Your task to perform on an android device: turn on data saver in the chrome app Image 0: 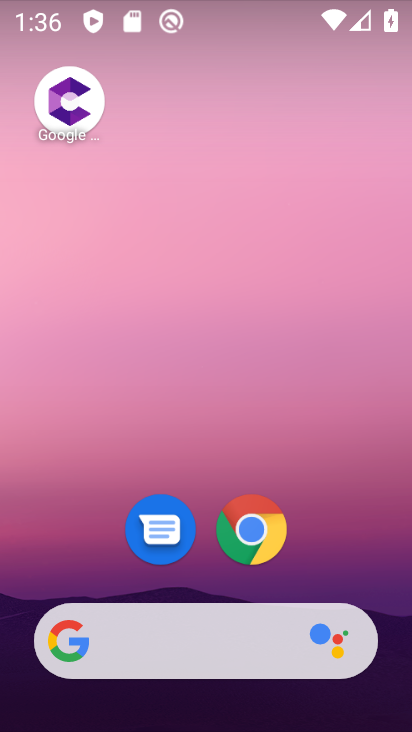
Step 0: click (248, 523)
Your task to perform on an android device: turn on data saver in the chrome app Image 1: 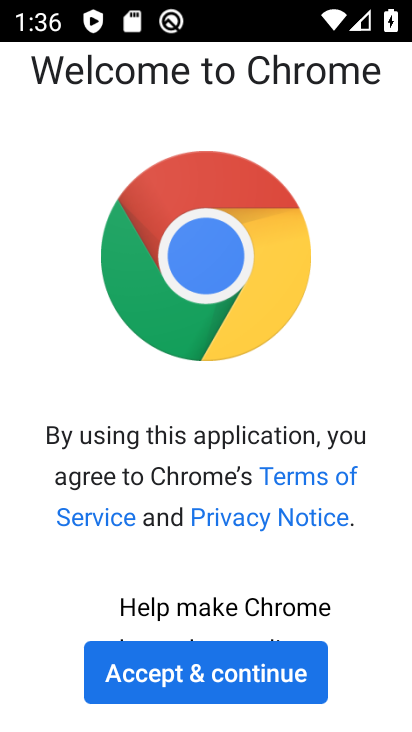
Step 1: click (207, 674)
Your task to perform on an android device: turn on data saver in the chrome app Image 2: 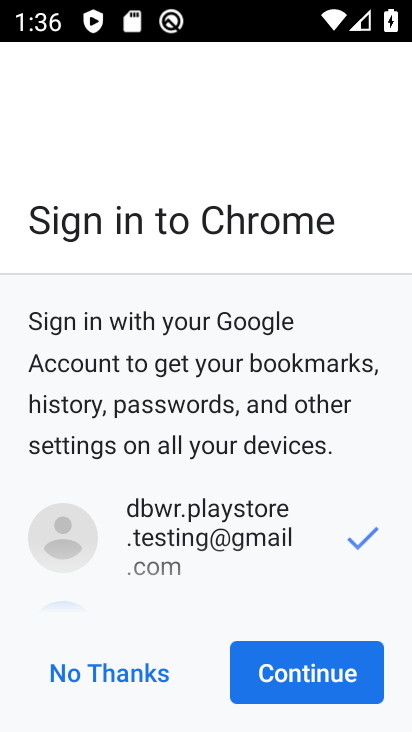
Step 2: click (290, 675)
Your task to perform on an android device: turn on data saver in the chrome app Image 3: 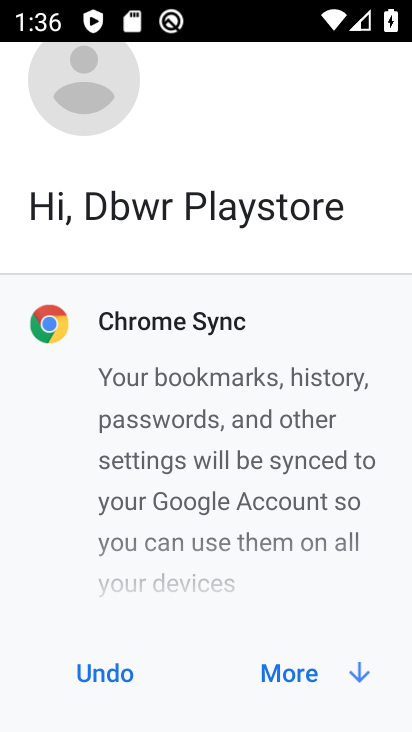
Step 3: click (290, 675)
Your task to perform on an android device: turn on data saver in the chrome app Image 4: 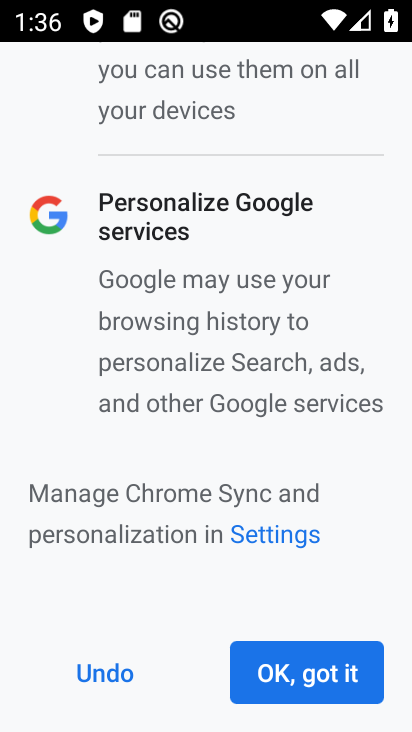
Step 4: click (290, 675)
Your task to perform on an android device: turn on data saver in the chrome app Image 5: 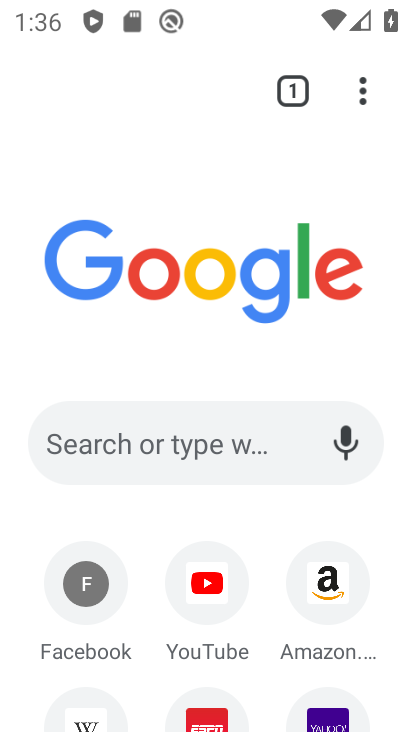
Step 5: click (360, 99)
Your task to perform on an android device: turn on data saver in the chrome app Image 6: 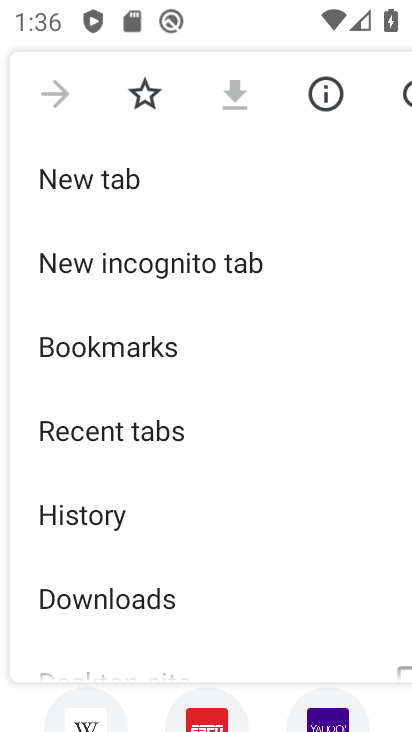
Step 6: drag from (228, 465) to (190, 158)
Your task to perform on an android device: turn on data saver in the chrome app Image 7: 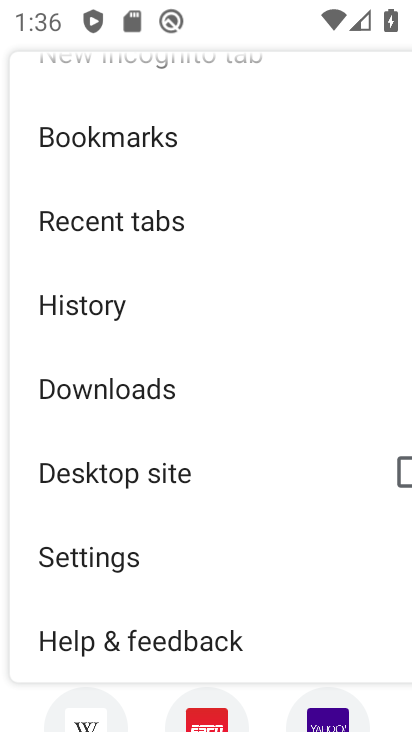
Step 7: drag from (183, 561) to (175, 137)
Your task to perform on an android device: turn on data saver in the chrome app Image 8: 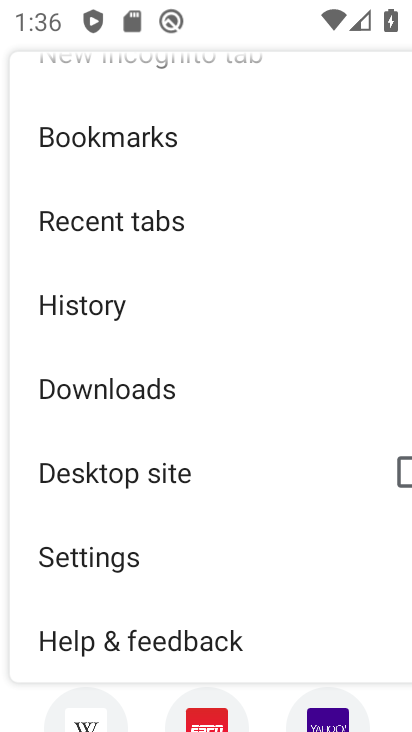
Step 8: click (109, 558)
Your task to perform on an android device: turn on data saver in the chrome app Image 9: 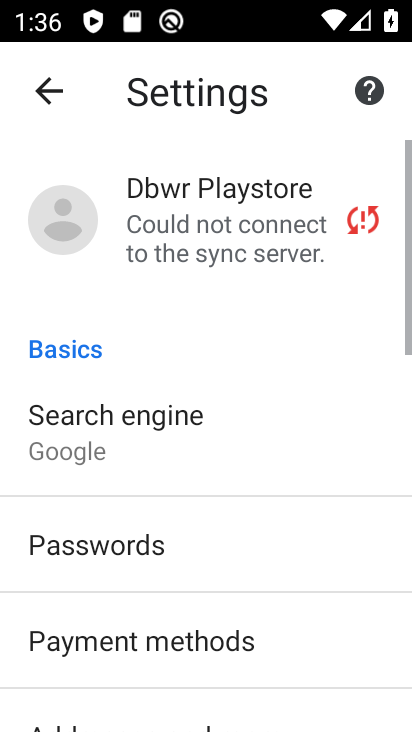
Step 9: drag from (264, 571) to (235, 78)
Your task to perform on an android device: turn on data saver in the chrome app Image 10: 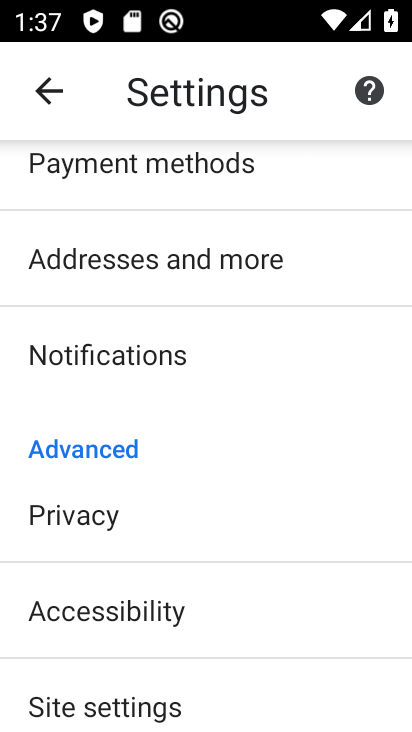
Step 10: drag from (159, 649) to (183, 152)
Your task to perform on an android device: turn on data saver in the chrome app Image 11: 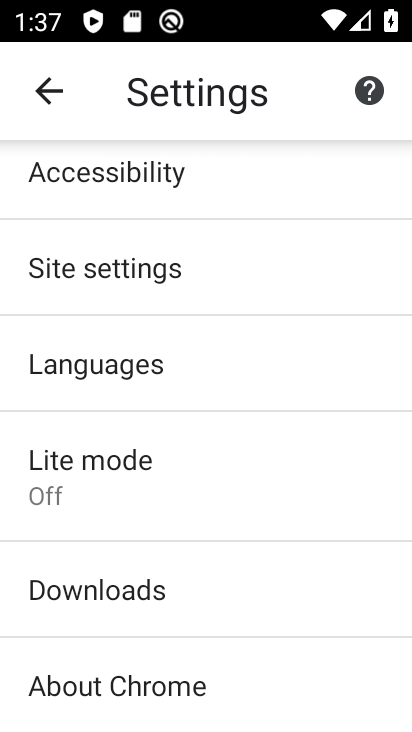
Step 11: click (169, 470)
Your task to perform on an android device: turn on data saver in the chrome app Image 12: 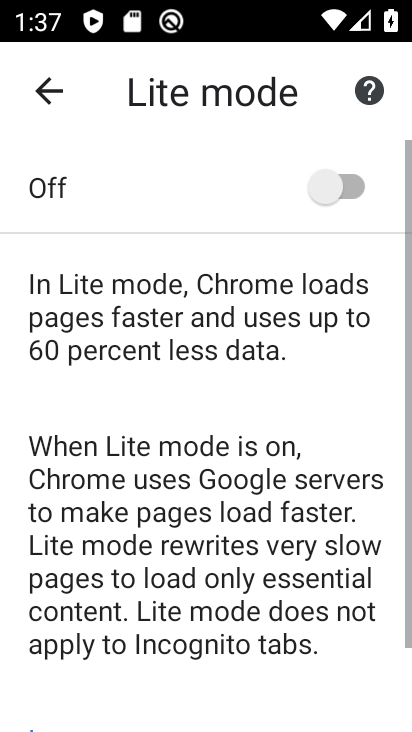
Step 12: click (344, 188)
Your task to perform on an android device: turn on data saver in the chrome app Image 13: 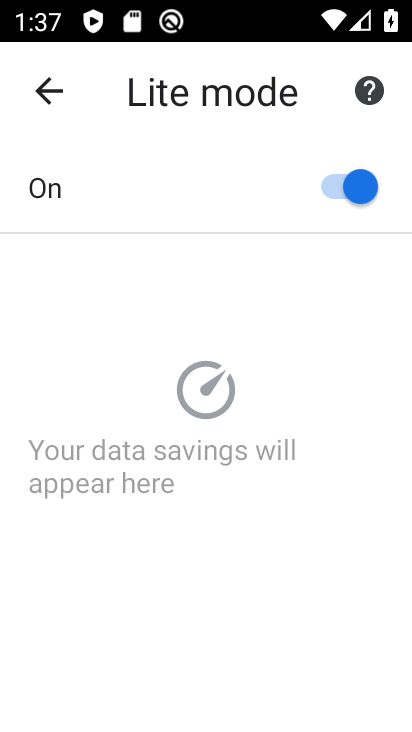
Step 13: task complete